Your task to perform on an android device: Go to Reddit.com Image 0: 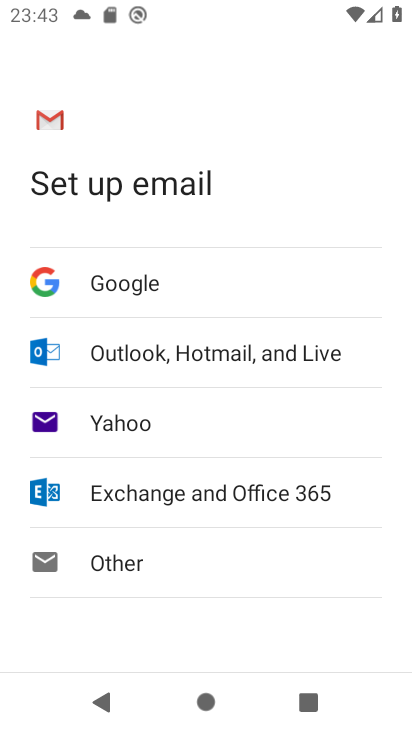
Step 0: press home button
Your task to perform on an android device: Go to Reddit.com Image 1: 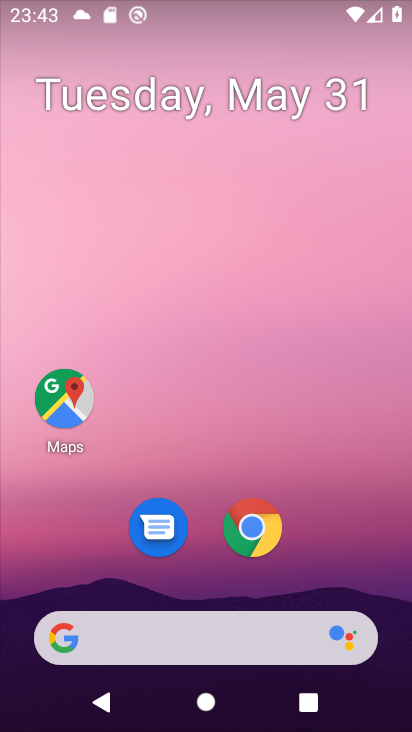
Step 1: click (249, 540)
Your task to perform on an android device: Go to Reddit.com Image 2: 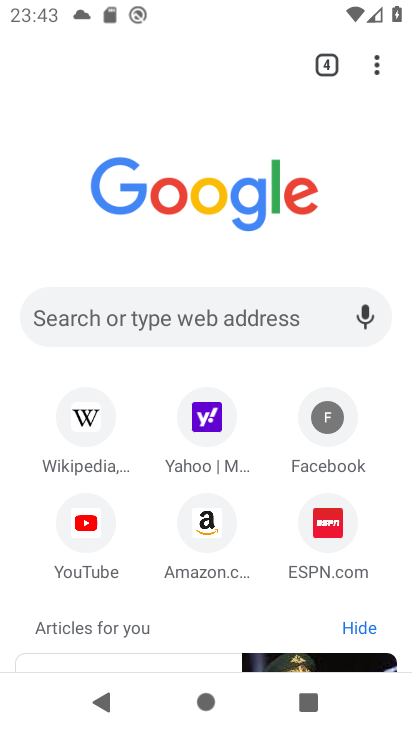
Step 2: click (265, 309)
Your task to perform on an android device: Go to Reddit.com Image 3: 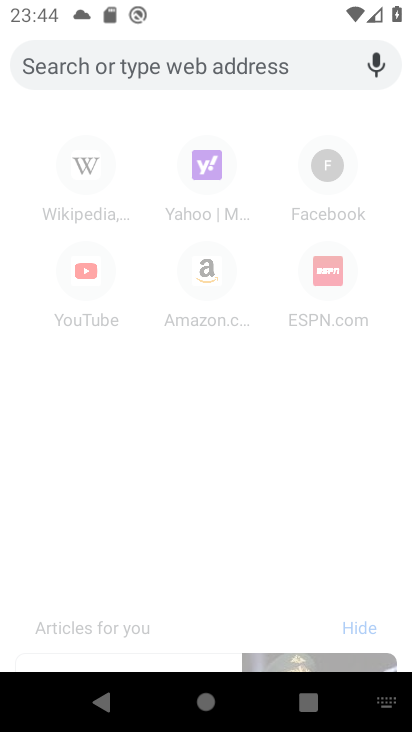
Step 3: type "Reddit.com"
Your task to perform on an android device: Go to Reddit.com Image 4: 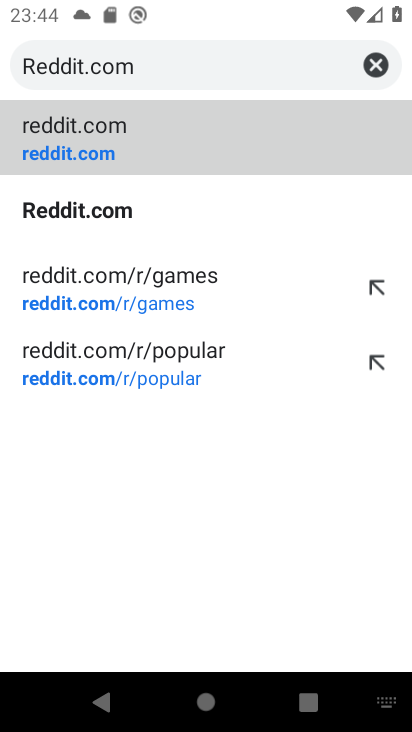
Step 4: click (161, 141)
Your task to perform on an android device: Go to Reddit.com Image 5: 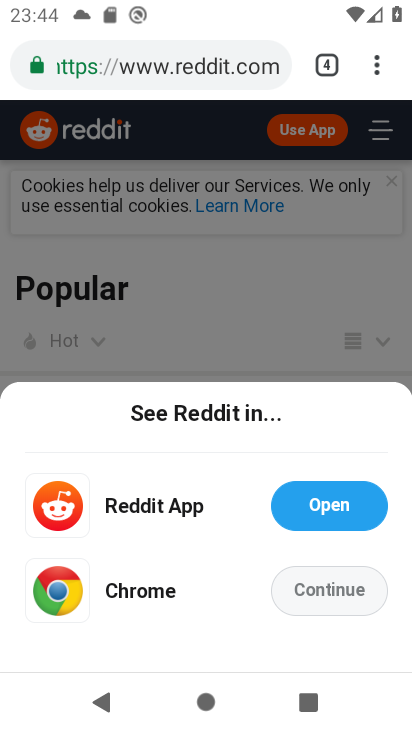
Step 5: task complete